Your task to perform on an android device: Open the calendar app, open the side menu, and click the "Day" option Image 0: 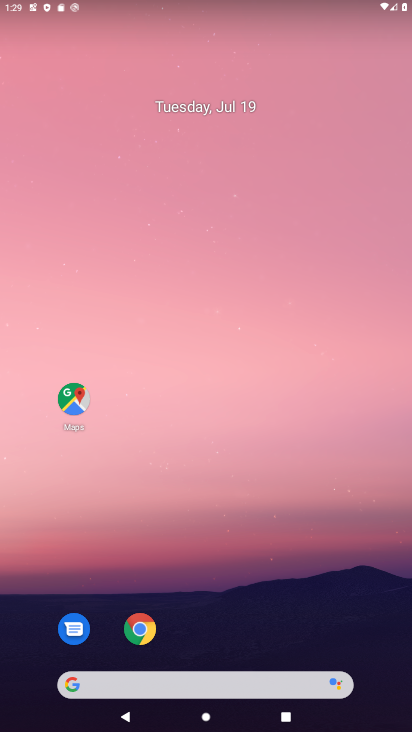
Step 0: drag from (200, 681) to (1, 157)
Your task to perform on an android device: Open the calendar app, open the side menu, and click the "Day" option Image 1: 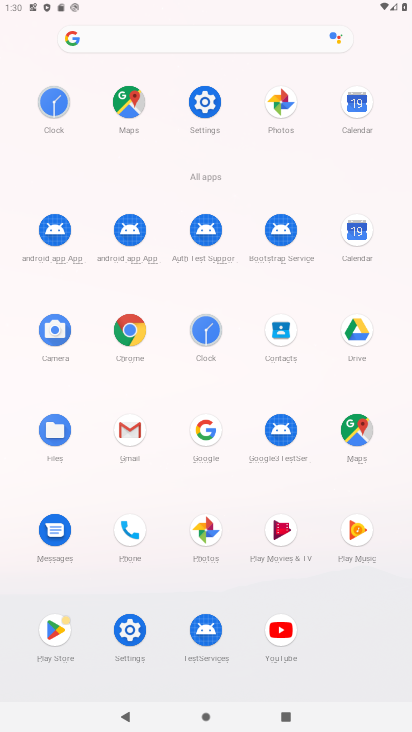
Step 1: click (356, 243)
Your task to perform on an android device: Open the calendar app, open the side menu, and click the "Day" option Image 2: 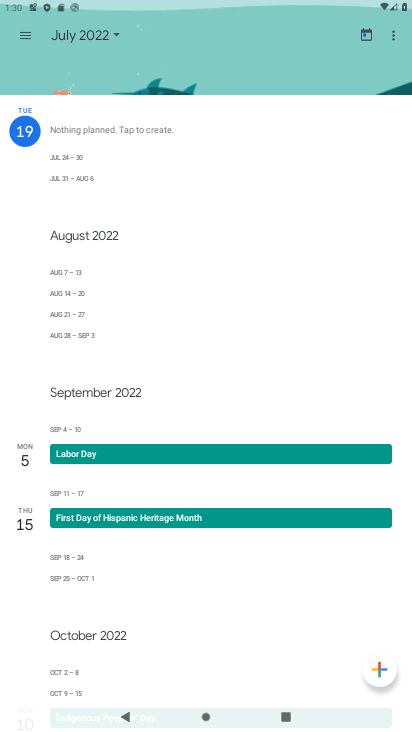
Step 2: click (24, 33)
Your task to perform on an android device: Open the calendar app, open the side menu, and click the "Day" option Image 3: 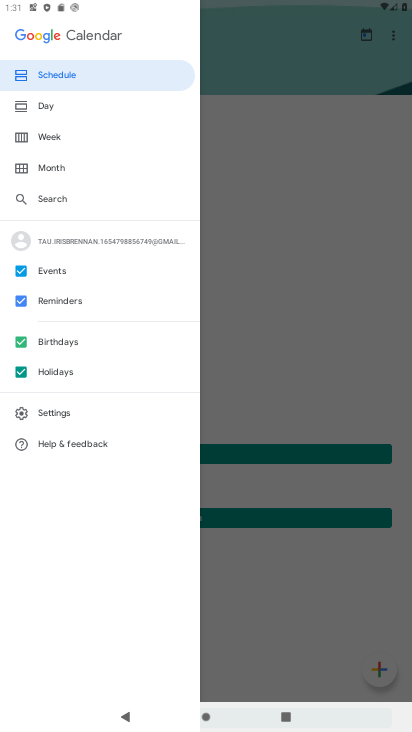
Step 3: click (77, 104)
Your task to perform on an android device: Open the calendar app, open the side menu, and click the "Day" option Image 4: 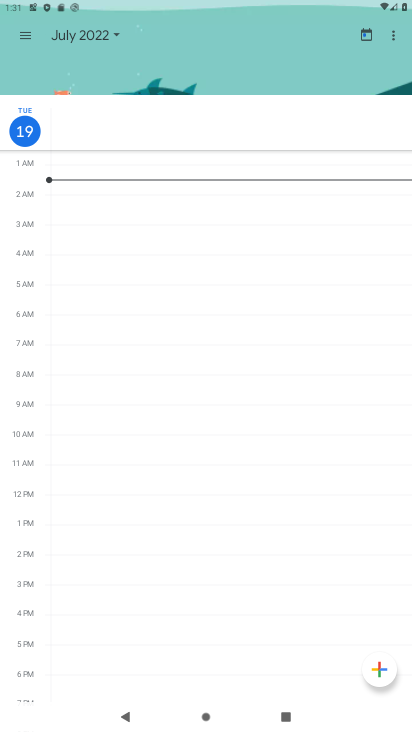
Step 4: task complete